Your task to perform on an android device: open chrome privacy settings Image 0: 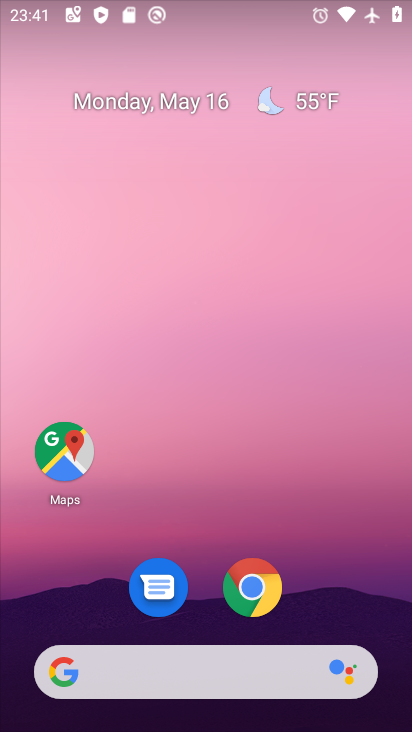
Step 0: drag from (292, 478) to (200, 1)
Your task to perform on an android device: open chrome privacy settings Image 1: 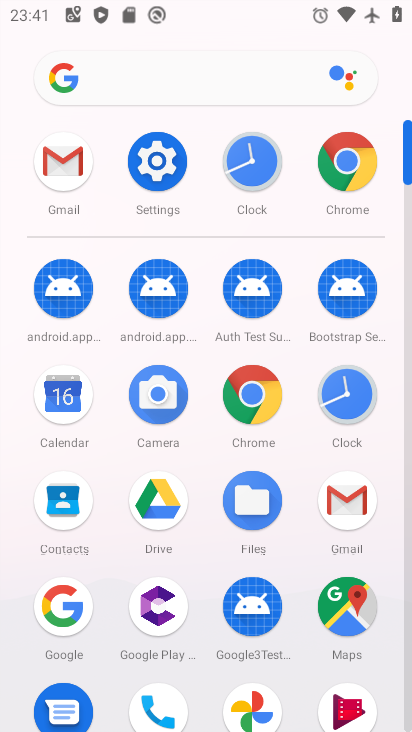
Step 1: drag from (23, 539) to (35, 152)
Your task to perform on an android device: open chrome privacy settings Image 2: 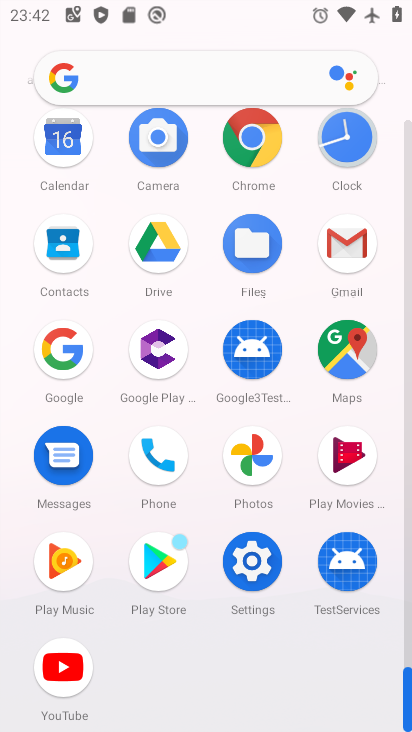
Step 2: click (251, 134)
Your task to perform on an android device: open chrome privacy settings Image 3: 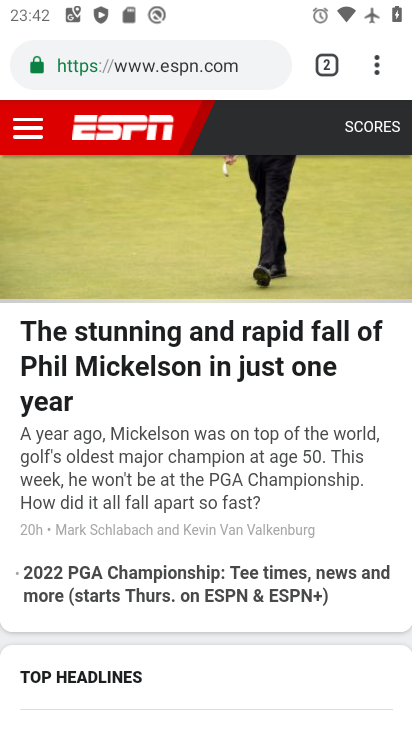
Step 3: drag from (373, 62) to (177, 630)
Your task to perform on an android device: open chrome privacy settings Image 4: 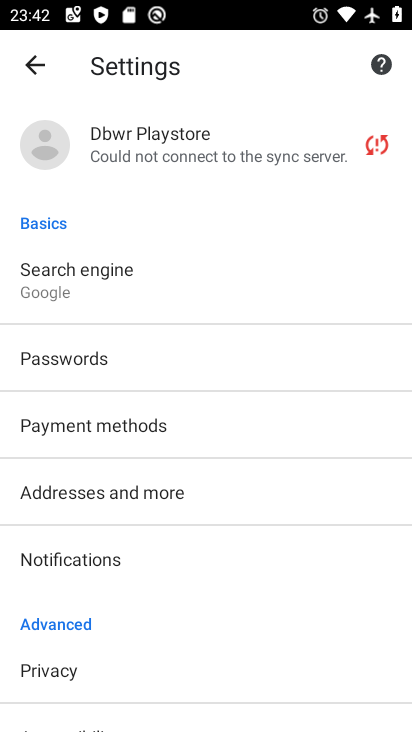
Step 4: click (89, 668)
Your task to perform on an android device: open chrome privacy settings Image 5: 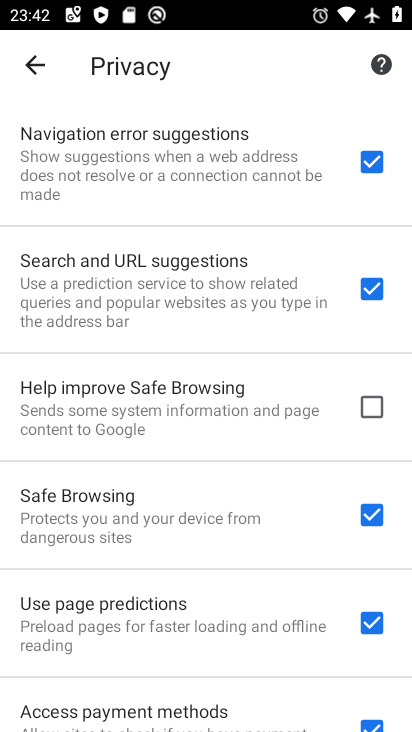
Step 5: task complete